Your task to perform on an android device: turn on data saver in the chrome app Image 0: 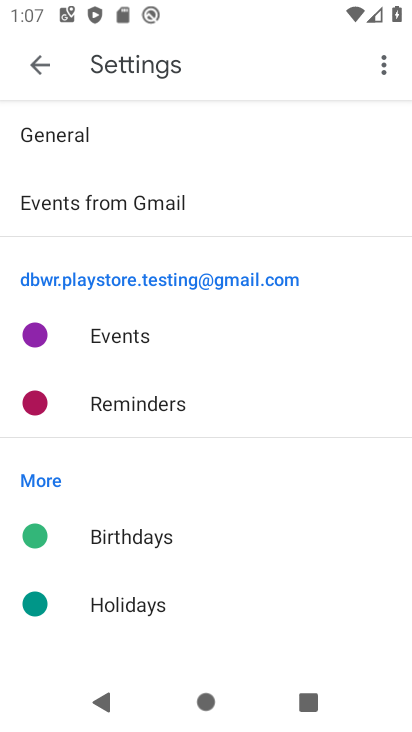
Step 0: press home button
Your task to perform on an android device: turn on data saver in the chrome app Image 1: 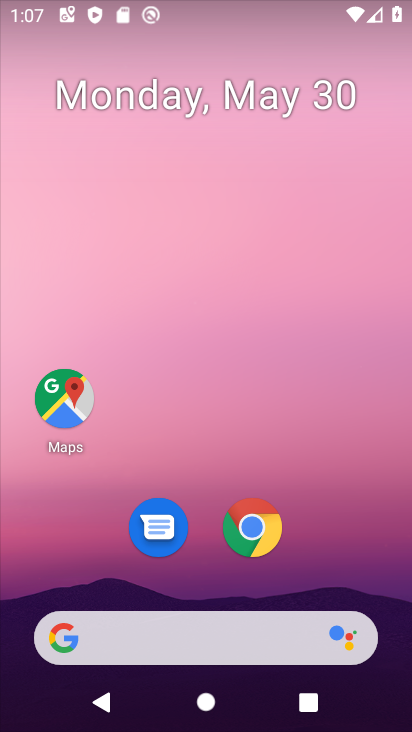
Step 1: click (257, 526)
Your task to perform on an android device: turn on data saver in the chrome app Image 2: 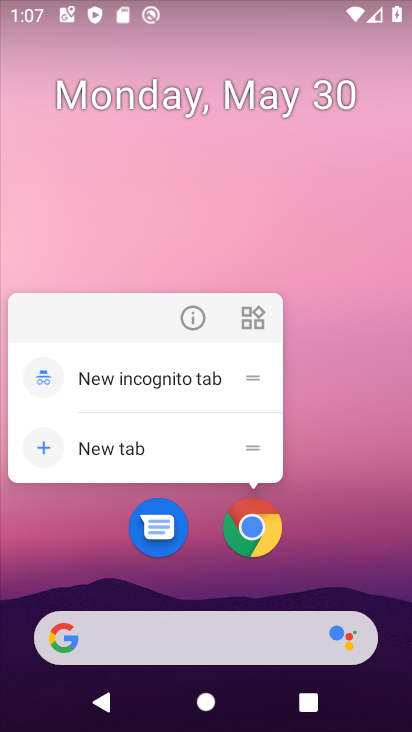
Step 2: click (254, 529)
Your task to perform on an android device: turn on data saver in the chrome app Image 3: 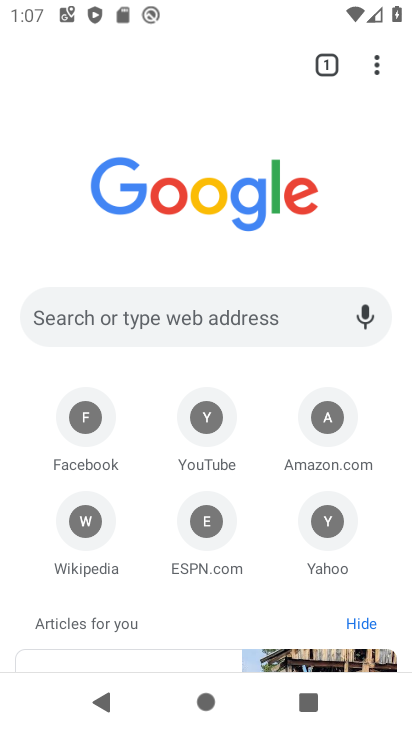
Step 3: click (383, 75)
Your task to perform on an android device: turn on data saver in the chrome app Image 4: 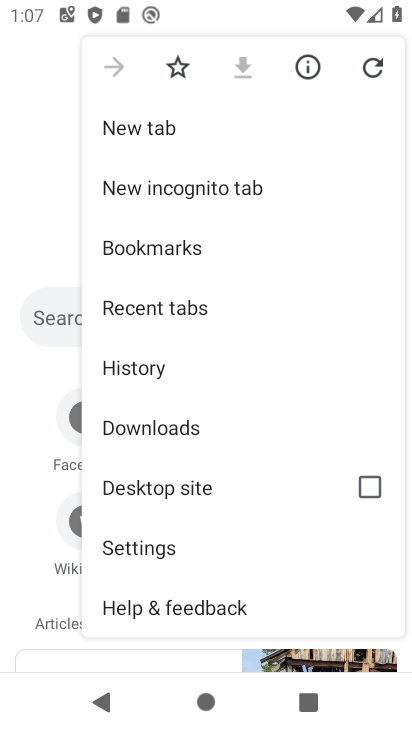
Step 4: click (168, 561)
Your task to perform on an android device: turn on data saver in the chrome app Image 5: 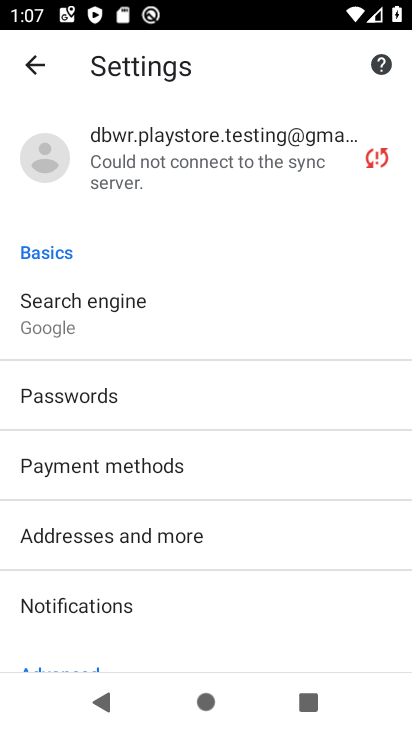
Step 5: drag from (151, 622) to (173, 270)
Your task to perform on an android device: turn on data saver in the chrome app Image 6: 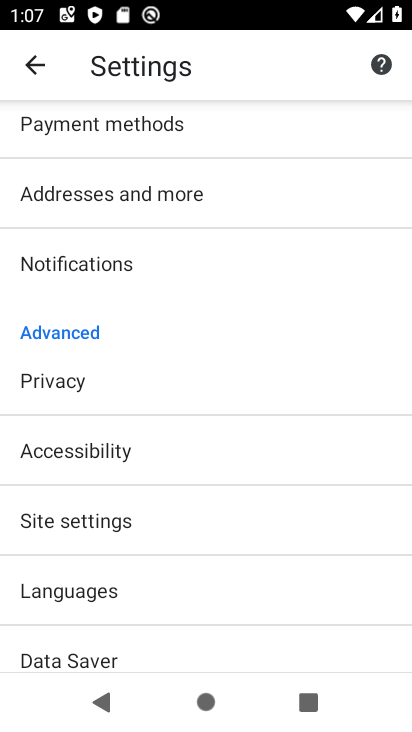
Step 6: drag from (107, 544) to (154, 328)
Your task to perform on an android device: turn on data saver in the chrome app Image 7: 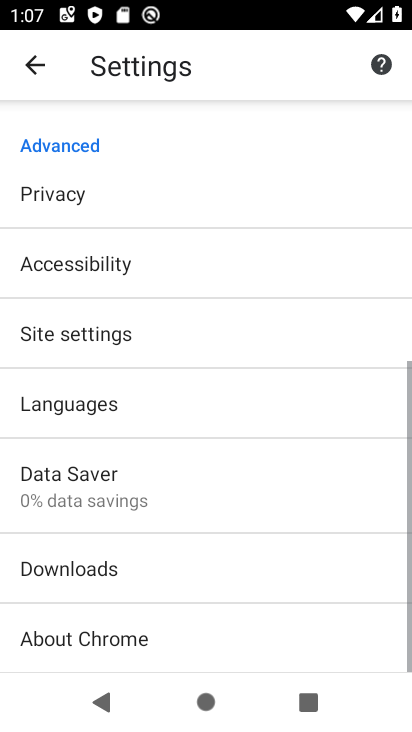
Step 7: click (84, 483)
Your task to perform on an android device: turn on data saver in the chrome app Image 8: 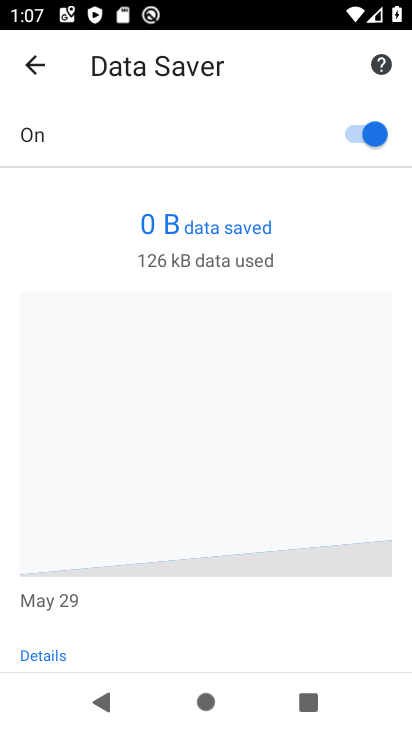
Step 8: task complete